Your task to perform on an android device: change text size in settings app Image 0: 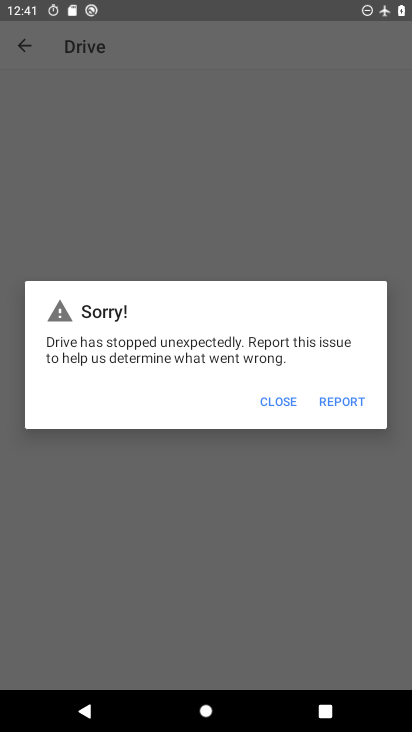
Step 0: press home button
Your task to perform on an android device: change text size in settings app Image 1: 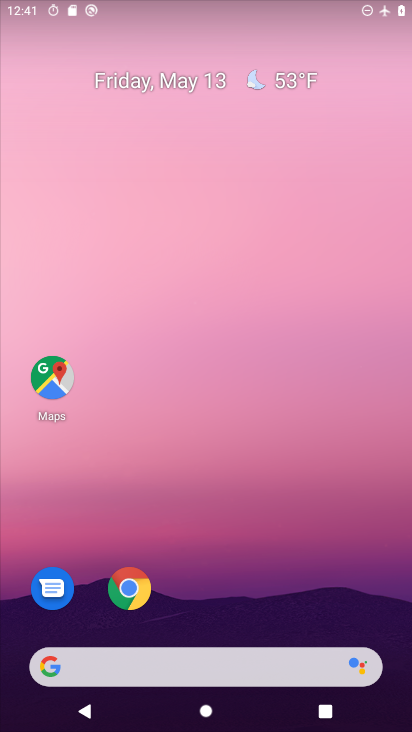
Step 1: drag from (318, 570) to (274, 76)
Your task to perform on an android device: change text size in settings app Image 2: 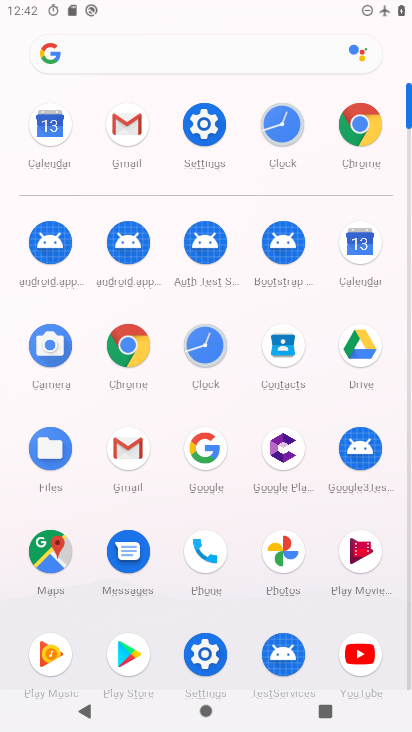
Step 2: click (216, 127)
Your task to perform on an android device: change text size in settings app Image 3: 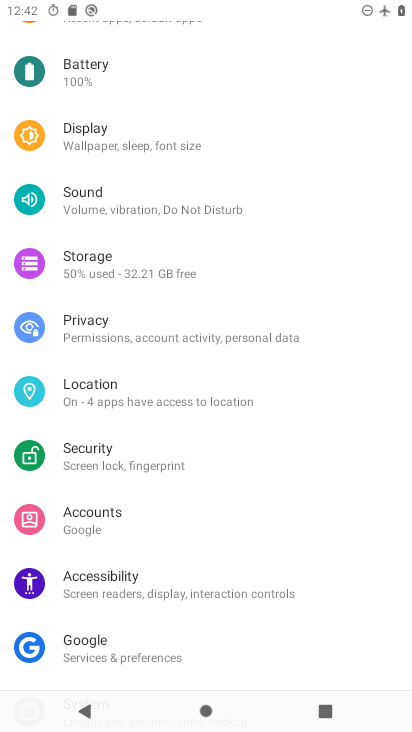
Step 3: click (133, 150)
Your task to perform on an android device: change text size in settings app Image 4: 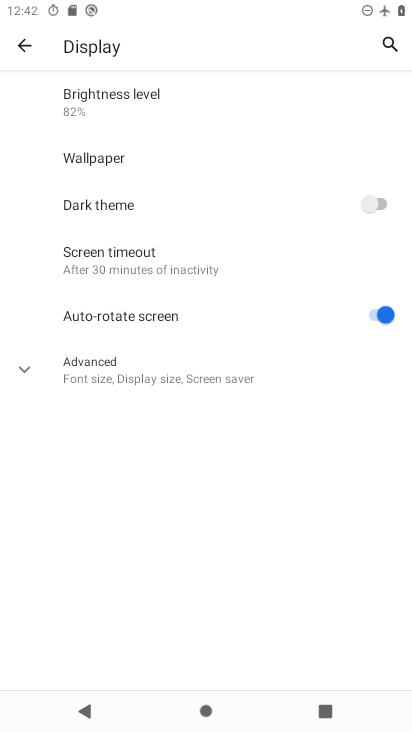
Step 4: click (122, 358)
Your task to perform on an android device: change text size in settings app Image 5: 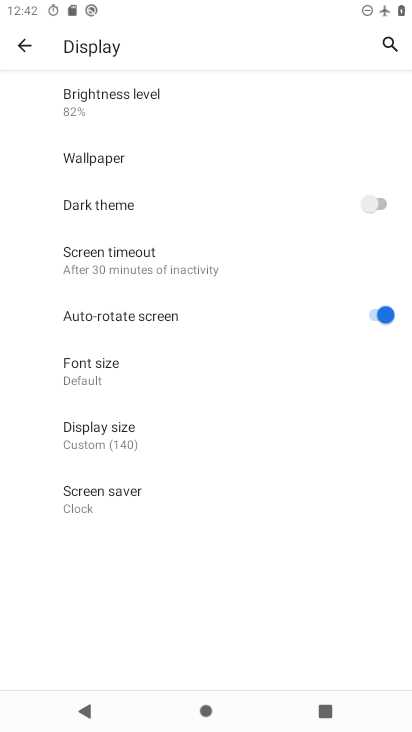
Step 5: click (98, 369)
Your task to perform on an android device: change text size in settings app Image 6: 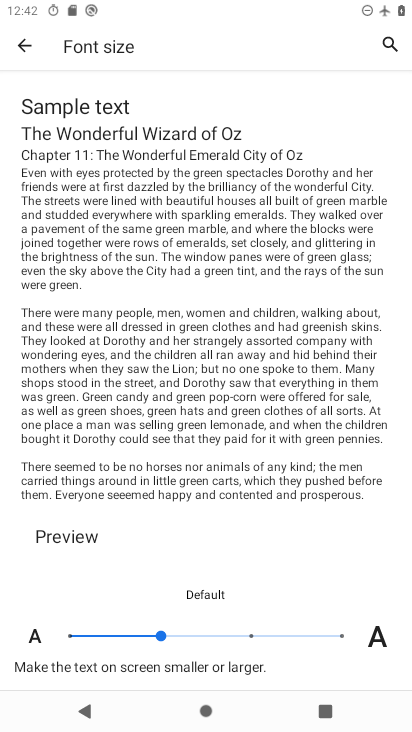
Step 6: click (96, 622)
Your task to perform on an android device: change text size in settings app Image 7: 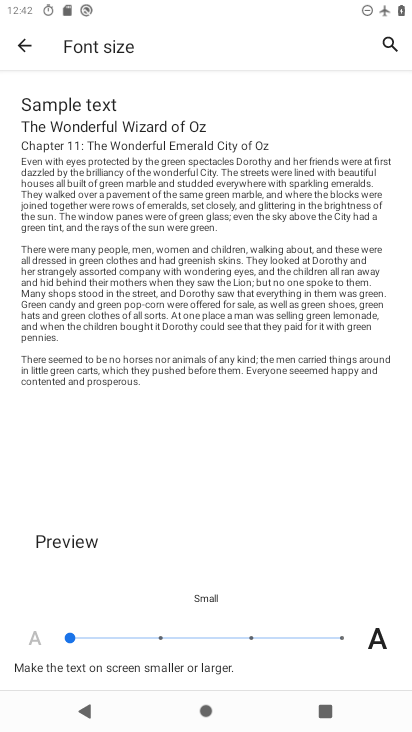
Step 7: task complete